Your task to perform on an android device: turn notification dots off Image 0: 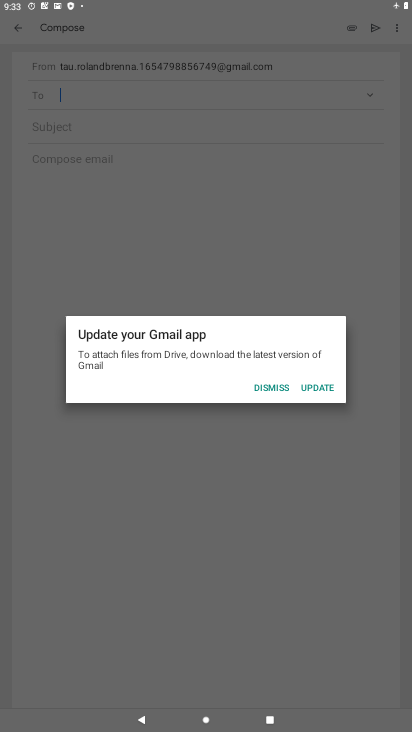
Step 0: drag from (252, 595) to (304, 224)
Your task to perform on an android device: turn notification dots off Image 1: 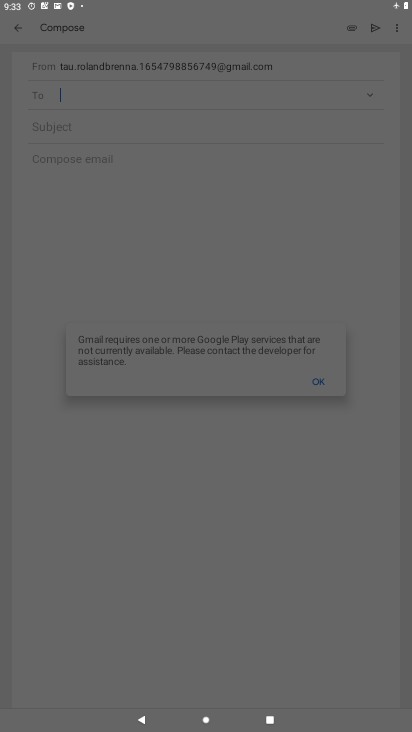
Step 1: press home button
Your task to perform on an android device: turn notification dots off Image 2: 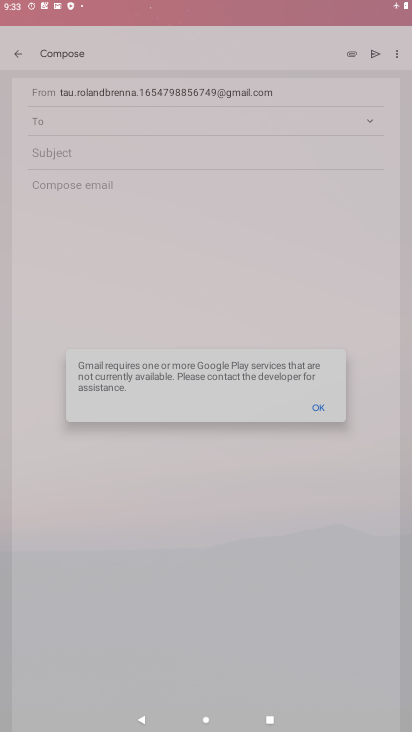
Step 2: drag from (243, 582) to (250, 161)
Your task to perform on an android device: turn notification dots off Image 3: 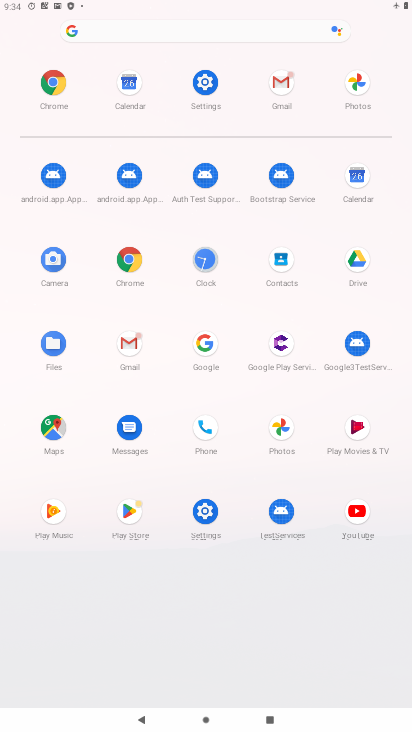
Step 3: click (198, 510)
Your task to perform on an android device: turn notification dots off Image 4: 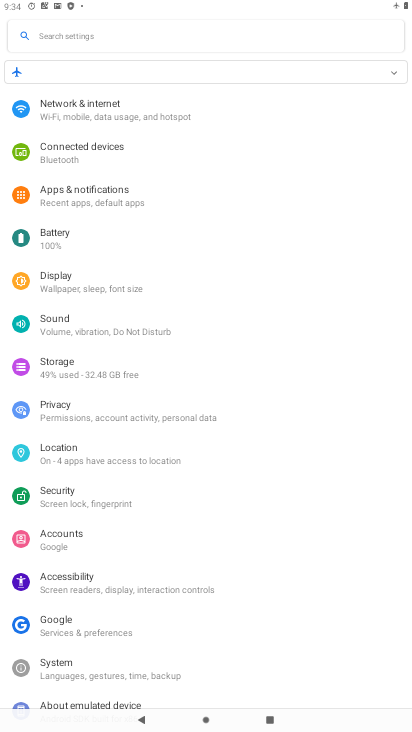
Step 4: click (131, 196)
Your task to perform on an android device: turn notification dots off Image 5: 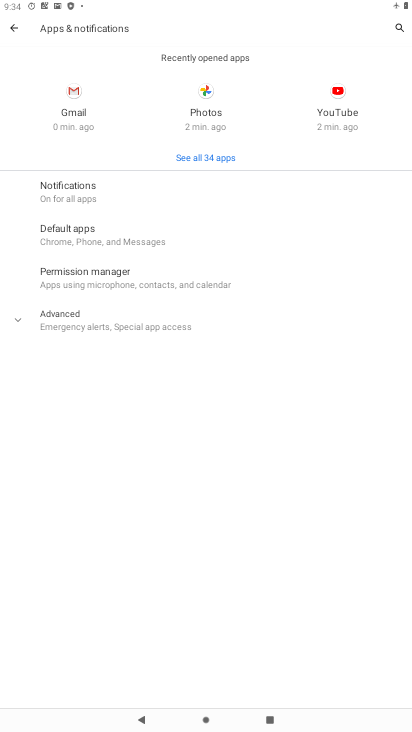
Step 5: click (176, 192)
Your task to perform on an android device: turn notification dots off Image 6: 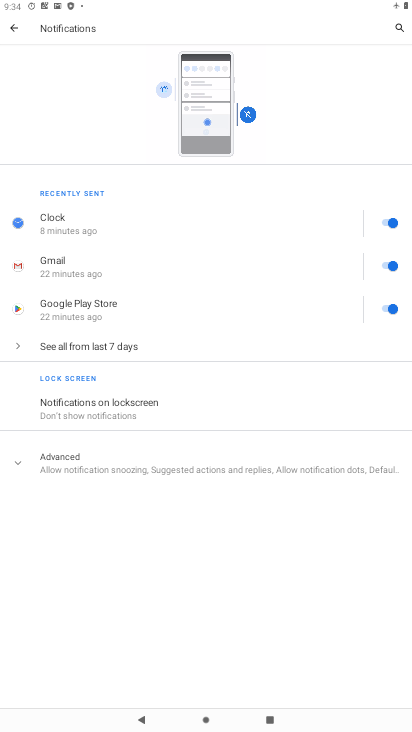
Step 6: click (119, 459)
Your task to perform on an android device: turn notification dots off Image 7: 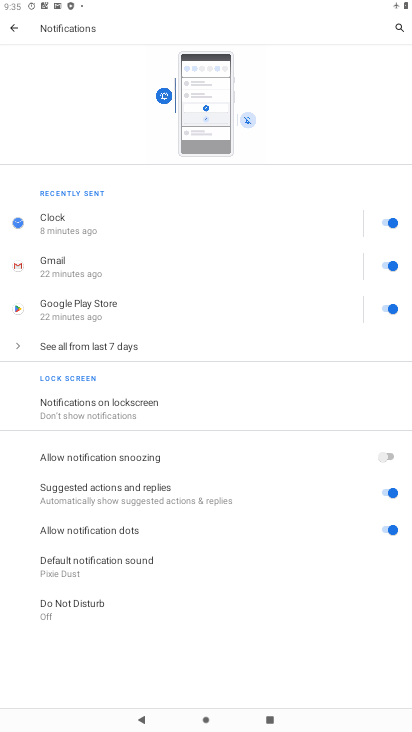
Step 7: drag from (171, 507) to (219, 142)
Your task to perform on an android device: turn notification dots off Image 8: 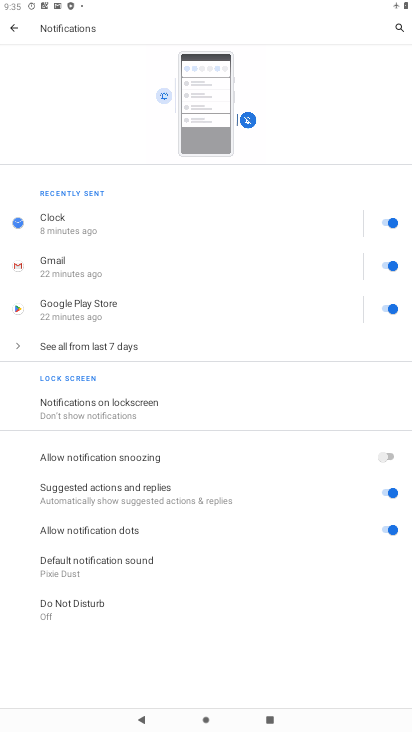
Step 8: drag from (211, 590) to (282, 289)
Your task to perform on an android device: turn notification dots off Image 9: 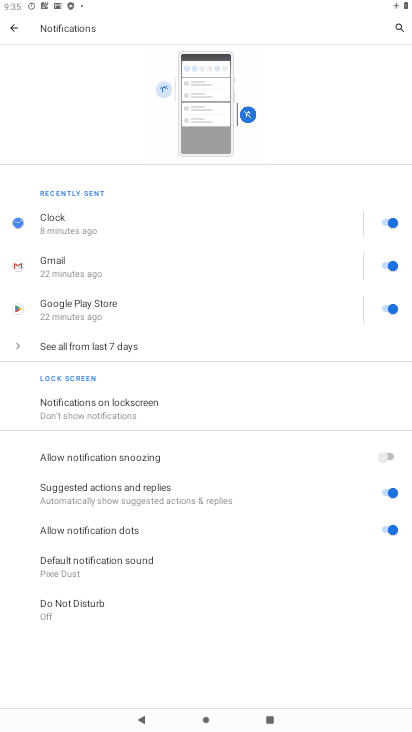
Step 9: click (378, 524)
Your task to perform on an android device: turn notification dots off Image 10: 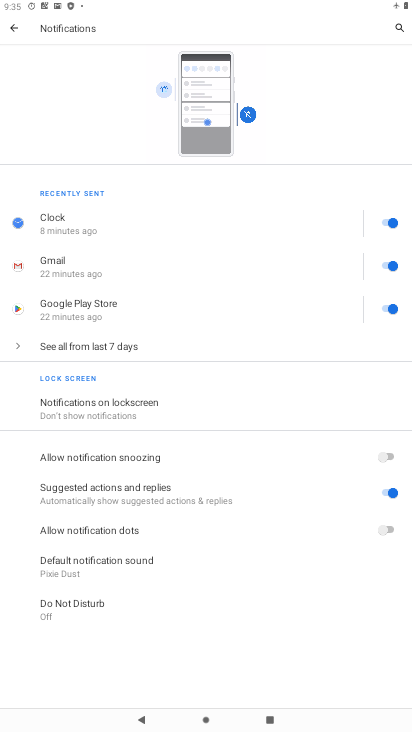
Step 10: task complete